Your task to perform on an android device: What's the latest news in cosmology? Image 0: 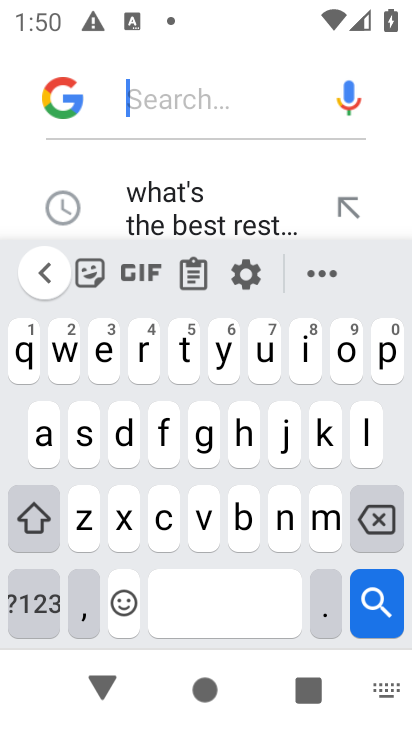
Step 0: click (208, 106)
Your task to perform on an android device: What's the latest news in cosmology? Image 1: 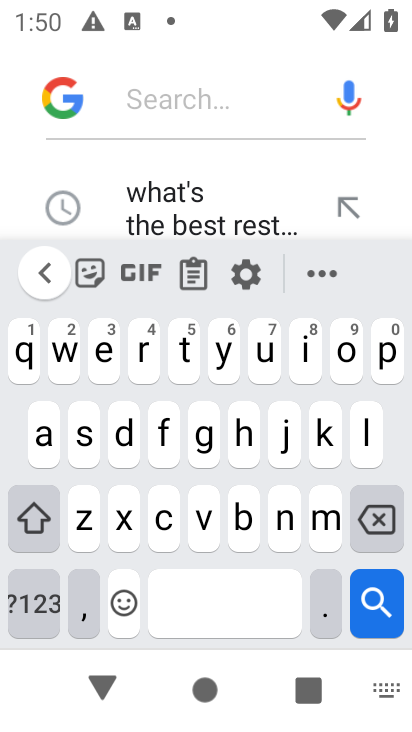
Step 1: type "whats the latest news in cosmology?"
Your task to perform on an android device: What's the latest news in cosmology? Image 2: 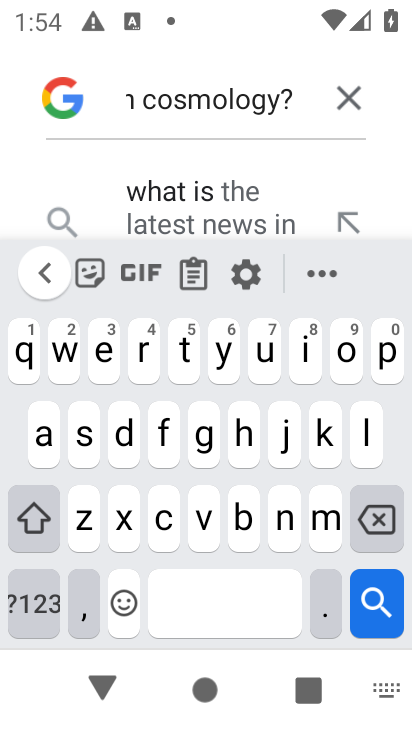
Step 2: click (250, 183)
Your task to perform on an android device: What's the latest news in cosmology? Image 3: 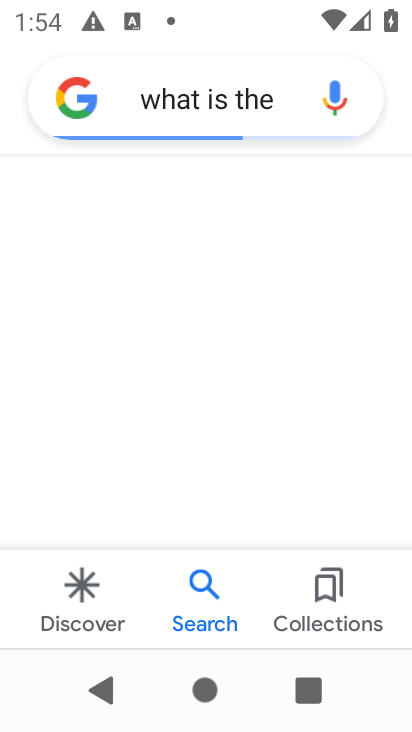
Step 3: task complete